Your task to perform on an android device: Open sound settings Image 0: 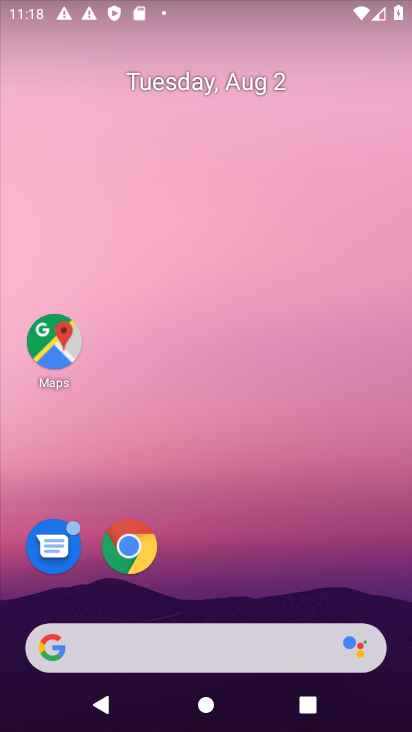
Step 0: drag from (221, 584) to (195, 98)
Your task to perform on an android device: Open sound settings Image 1: 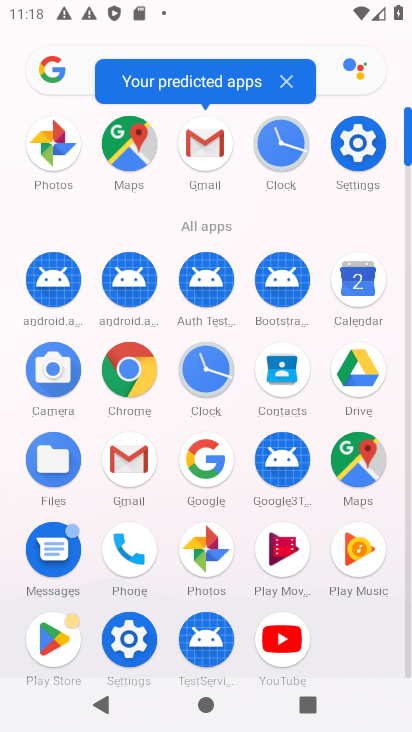
Step 1: click (350, 168)
Your task to perform on an android device: Open sound settings Image 2: 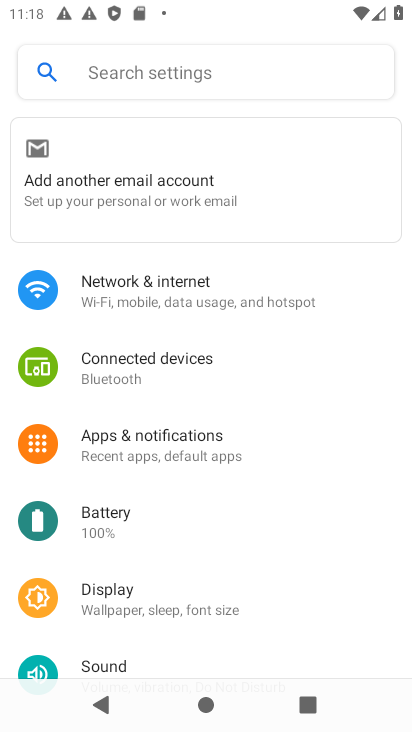
Step 2: drag from (181, 648) to (184, 346)
Your task to perform on an android device: Open sound settings Image 3: 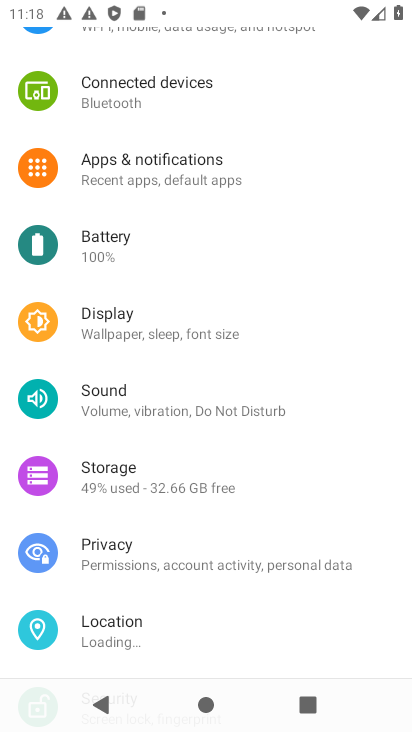
Step 3: click (149, 406)
Your task to perform on an android device: Open sound settings Image 4: 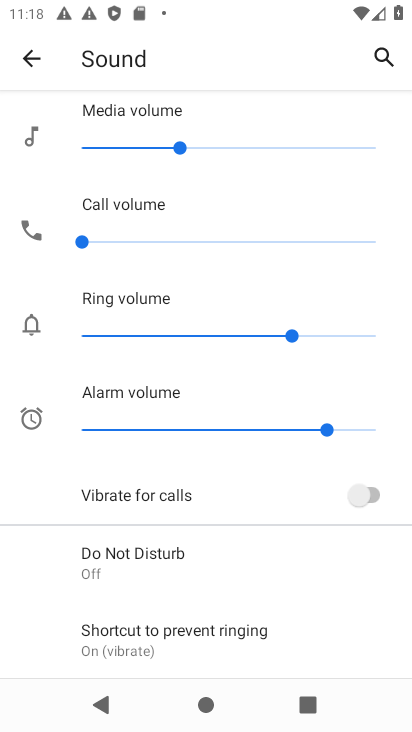
Step 4: task complete